Your task to perform on an android device: read, delete, or share a saved page in the chrome app Image 0: 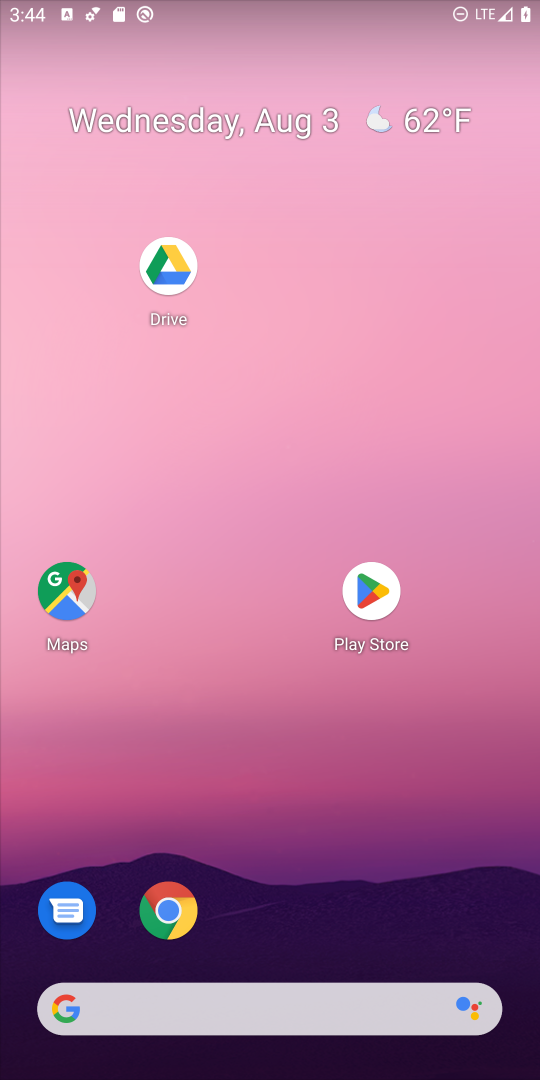
Step 0: drag from (371, 437) to (371, 27)
Your task to perform on an android device: read, delete, or share a saved page in the chrome app Image 1: 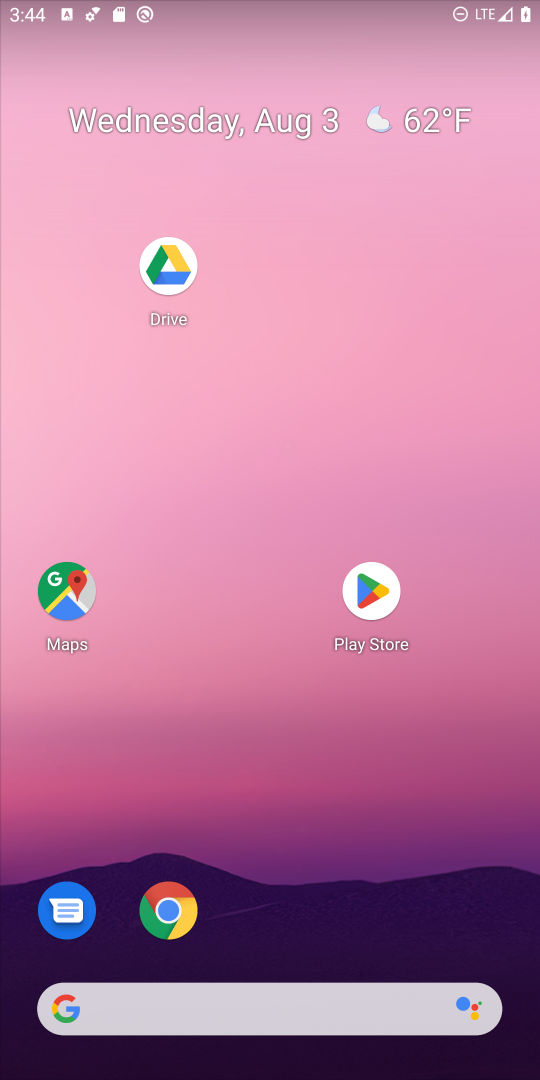
Step 1: drag from (315, 903) to (360, 49)
Your task to perform on an android device: read, delete, or share a saved page in the chrome app Image 2: 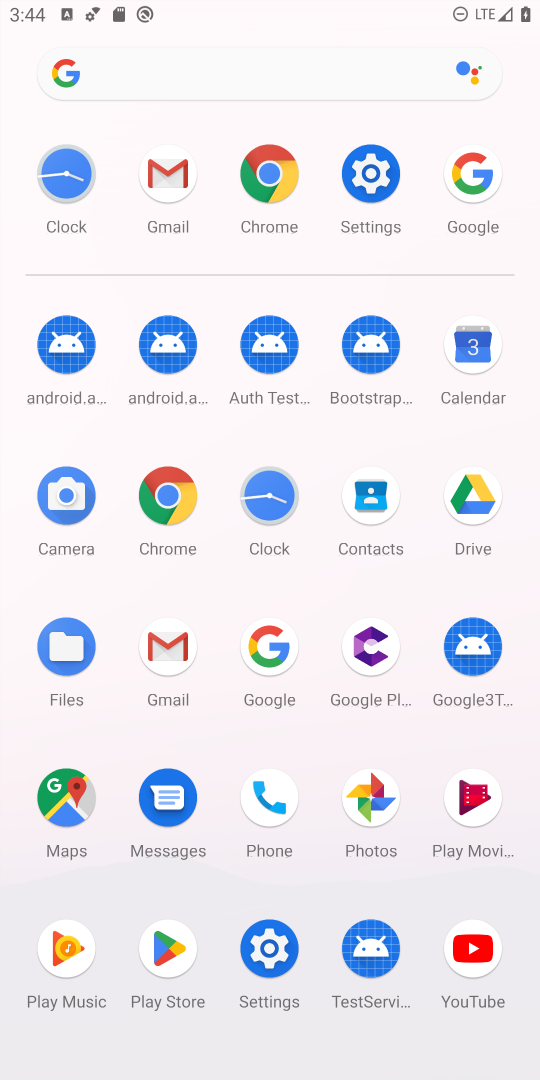
Step 2: click (174, 508)
Your task to perform on an android device: read, delete, or share a saved page in the chrome app Image 3: 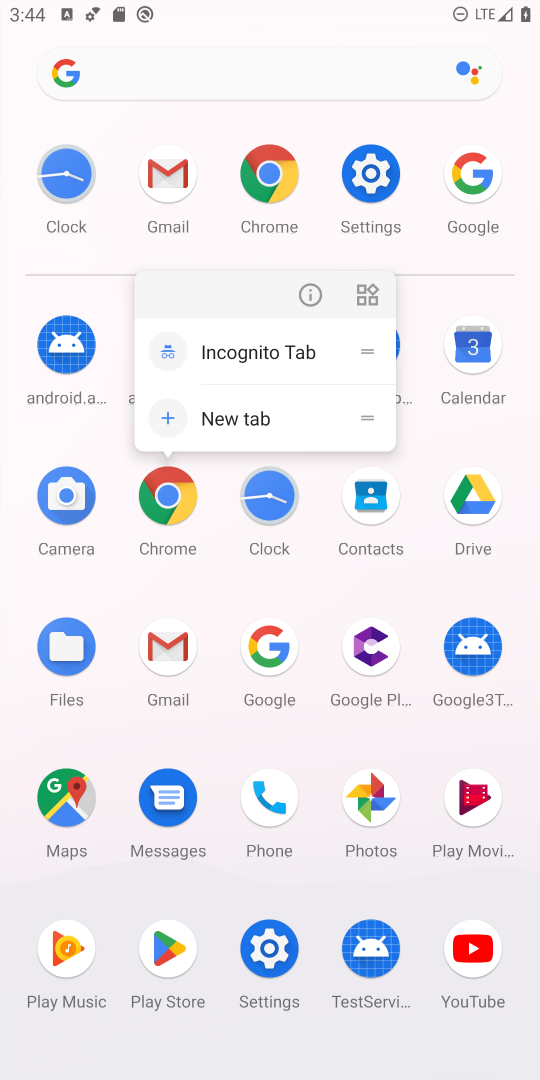
Step 3: click (168, 513)
Your task to perform on an android device: read, delete, or share a saved page in the chrome app Image 4: 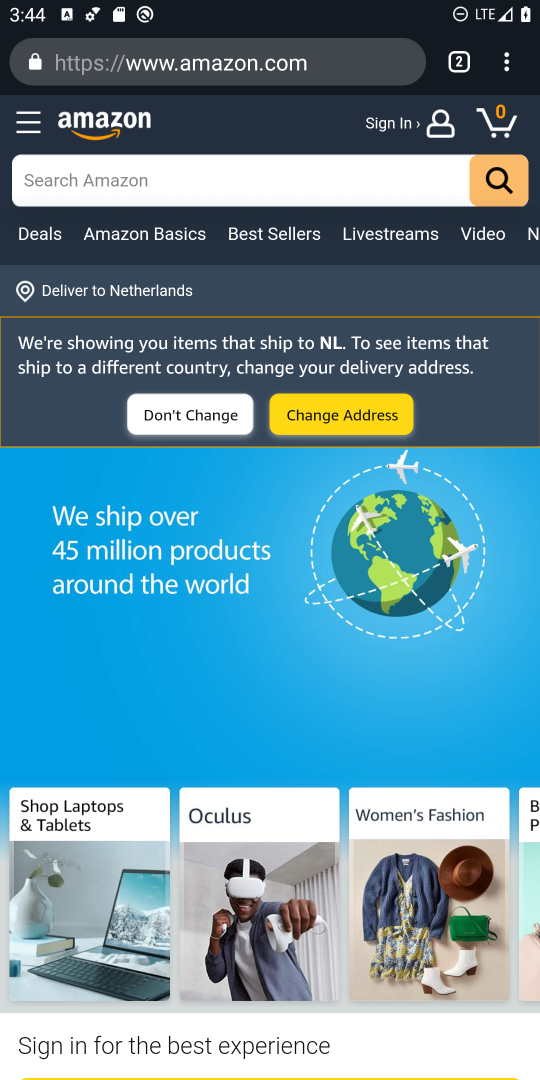
Step 4: task complete